Your task to perform on an android device: What is the news today? Image 0: 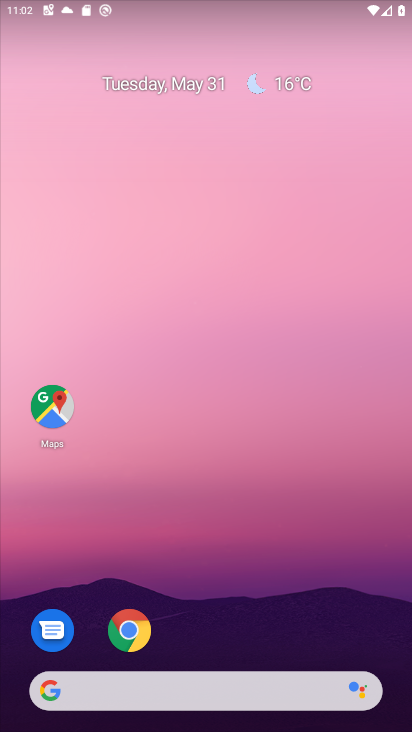
Step 0: click (131, 624)
Your task to perform on an android device: What is the news today? Image 1: 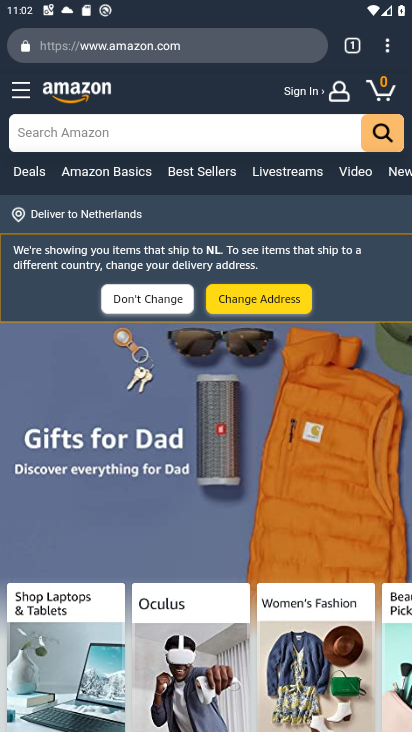
Step 1: click (221, 54)
Your task to perform on an android device: What is the news today? Image 2: 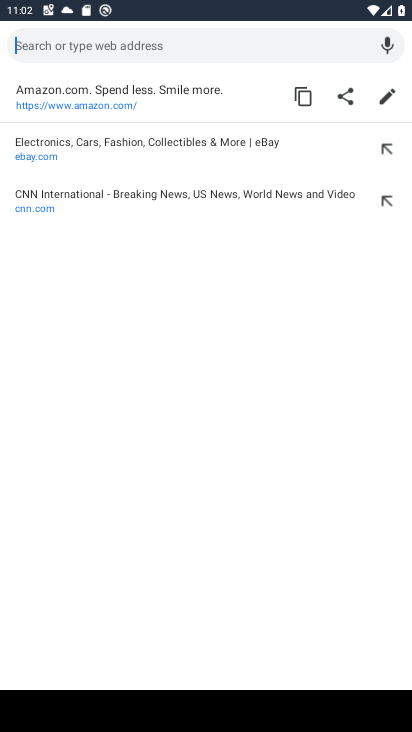
Step 2: type "news"
Your task to perform on an android device: What is the news today? Image 3: 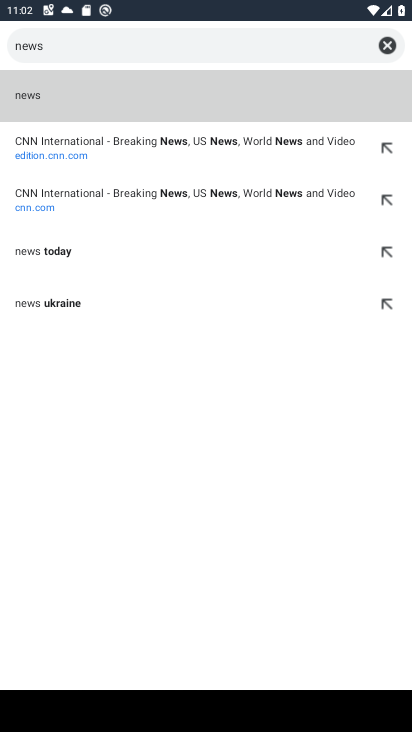
Step 3: click (36, 95)
Your task to perform on an android device: What is the news today? Image 4: 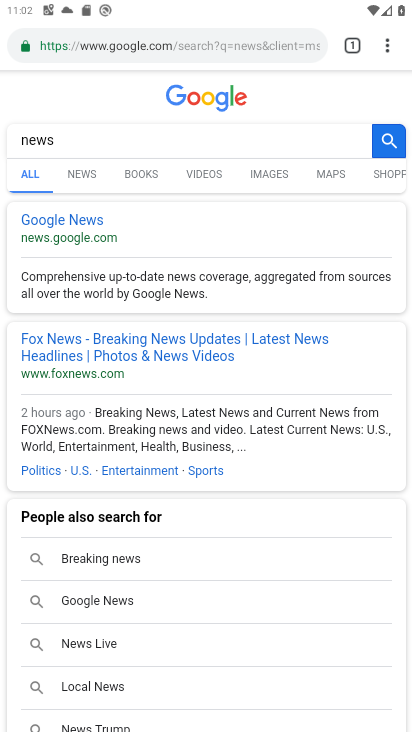
Step 4: click (93, 182)
Your task to perform on an android device: What is the news today? Image 5: 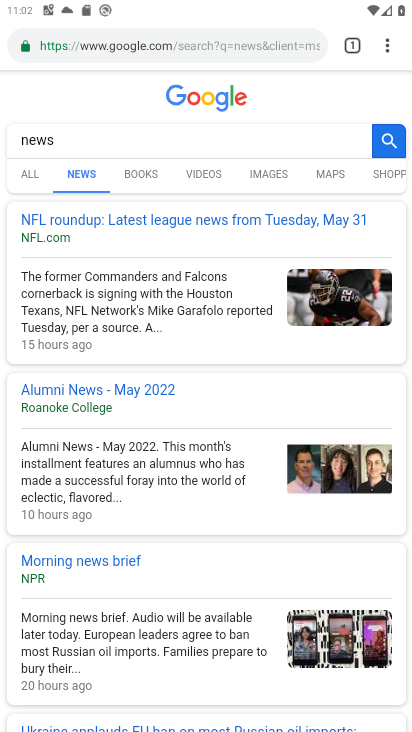
Step 5: task complete